Your task to perform on an android device: search for starred emails in the gmail app Image 0: 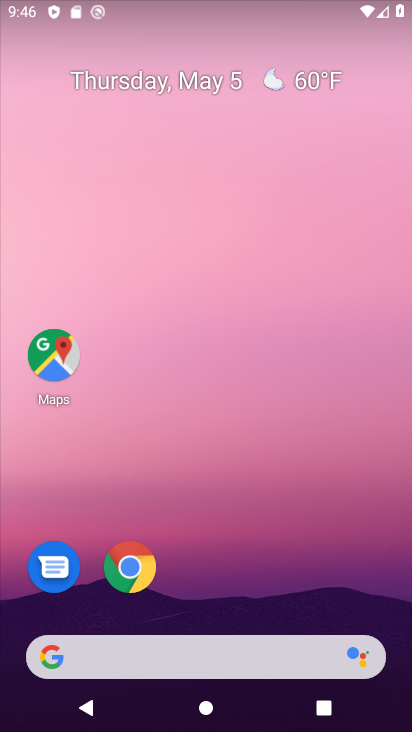
Step 0: drag from (195, 467) to (164, 154)
Your task to perform on an android device: search for starred emails in the gmail app Image 1: 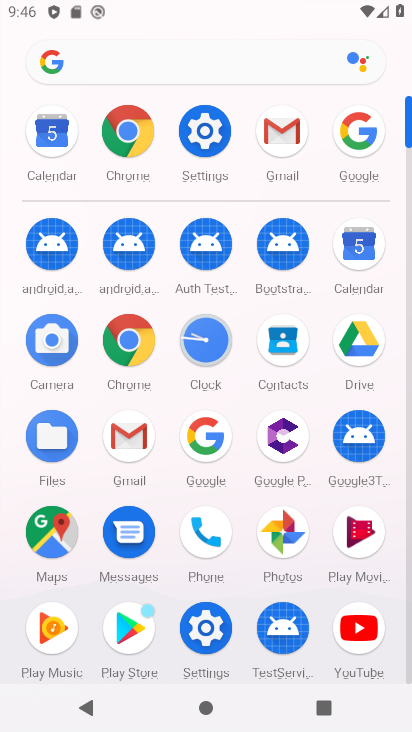
Step 1: click (275, 152)
Your task to perform on an android device: search for starred emails in the gmail app Image 2: 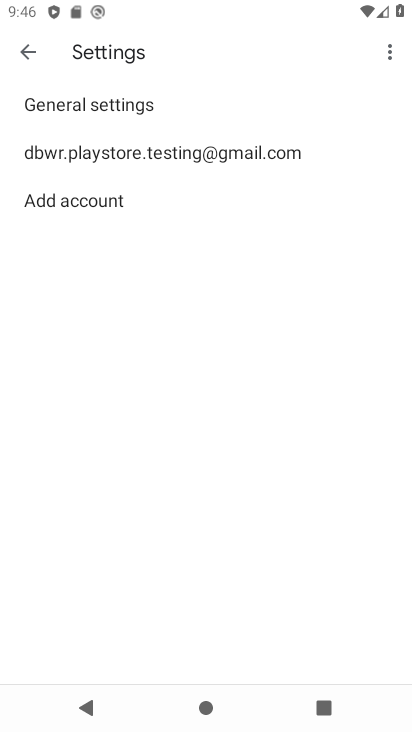
Step 2: click (275, 152)
Your task to perform on an android device: search for starred emails in the gmail app Image 3: 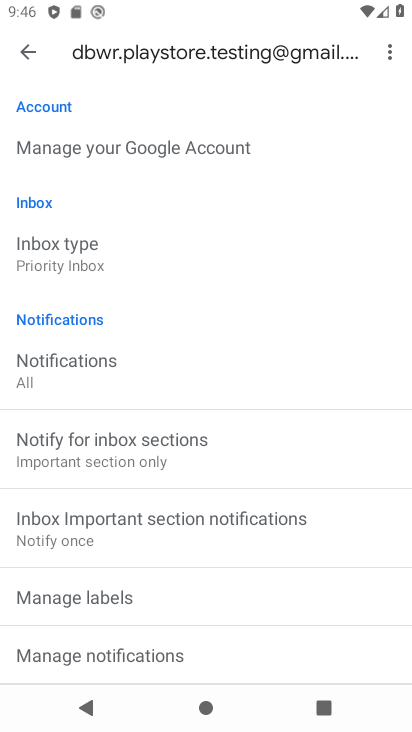
Step 3: drag from (253, 640) to (276, 326)
Your task to perform on an android device: search for starred emails in the gmail app Image 4: 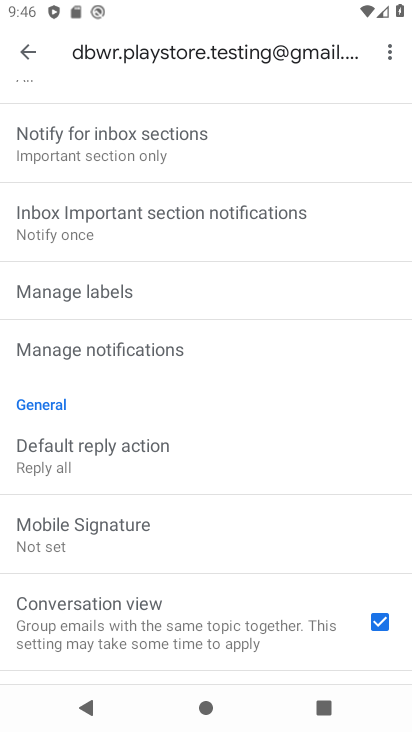
Step 4: drag from (200, 186) to (211, 666)
Your task to perform on an android device: search for starred emails in the gmail app Image 5: 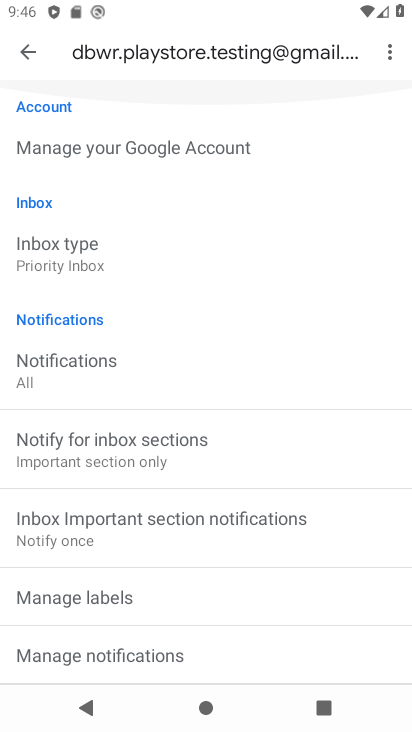
Step 5: drag from (217, 213) to (231, 643)
Your task to perform on an android device: search for starred emails in the gmail app Image 6: 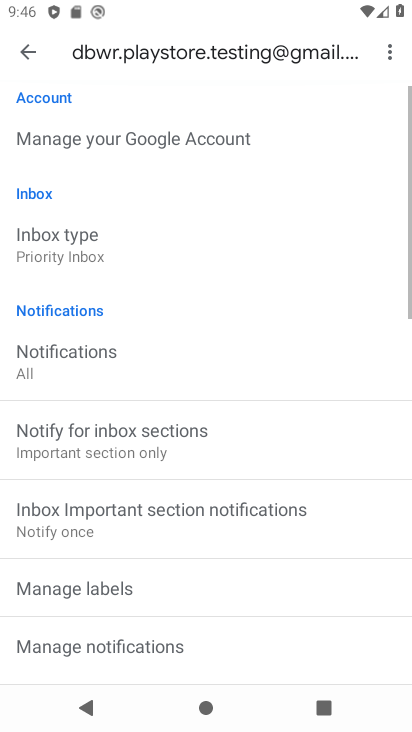
Step 6: click (19, 43)
Your task to perform on an android device: search for starred emails in the gmail app Image 7: 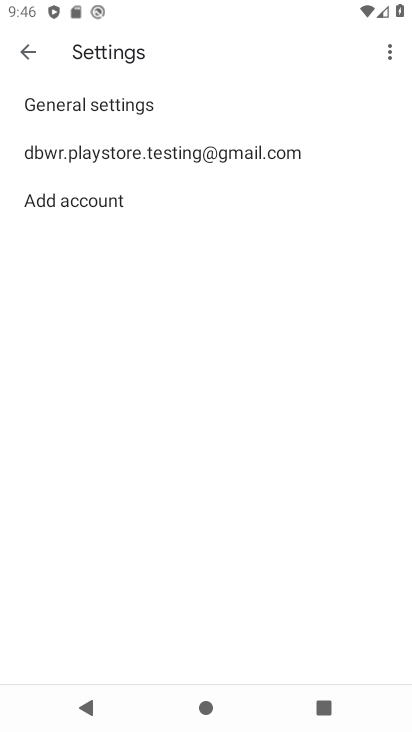
Step 7: click (19, 43)
Your task to perform on an android device: search for starred emails in the gmail app Image 8: 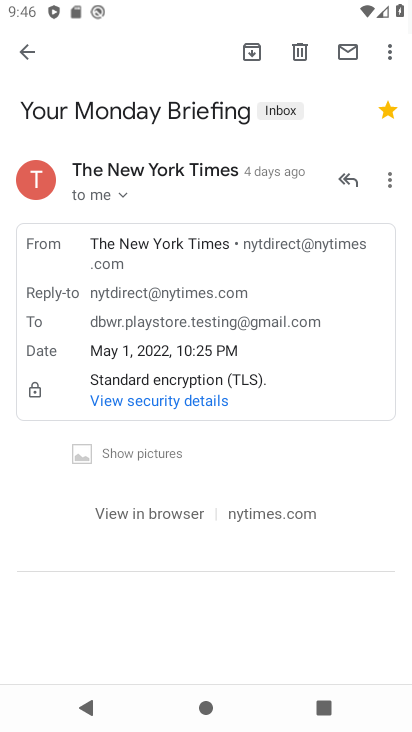
Step 8: click (26, 59)
Your task to perform on an android device: search for starred emails in the gmail app Image 9: 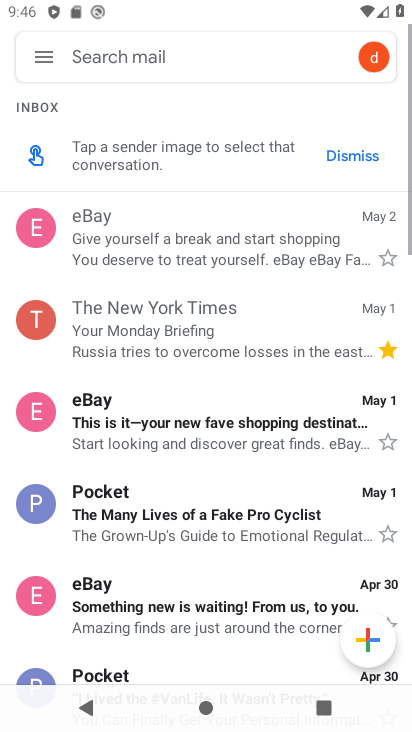
Step 9: click (39, 57)
Your task to perform on an android device: search for starred emails in the gmail app Image 10: 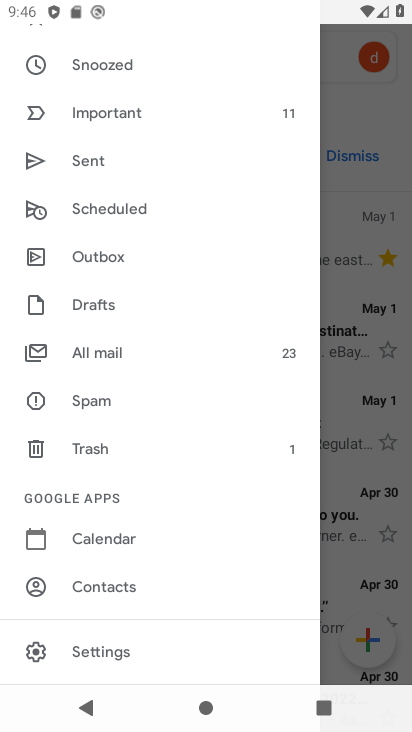
Step 10: drag from (148, 158) to (156, 520)
Your task to perform on an android device: search for starred emails in the gmail app Image 11: 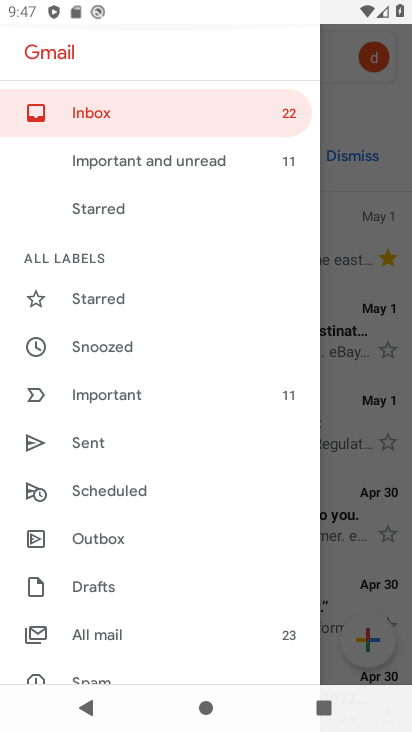
Step 11: click (127, 302)
Your task to perform on an android device: search for starred emails in the gmail app Image 12: 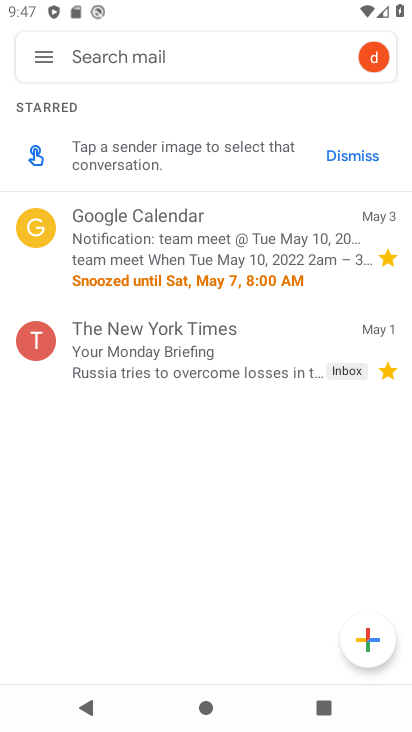
Step 12: task complete